Your task to perform on an android device: open app "Adobe Acrobat Reader" (install if not already installed) and go to login screen Image 0: 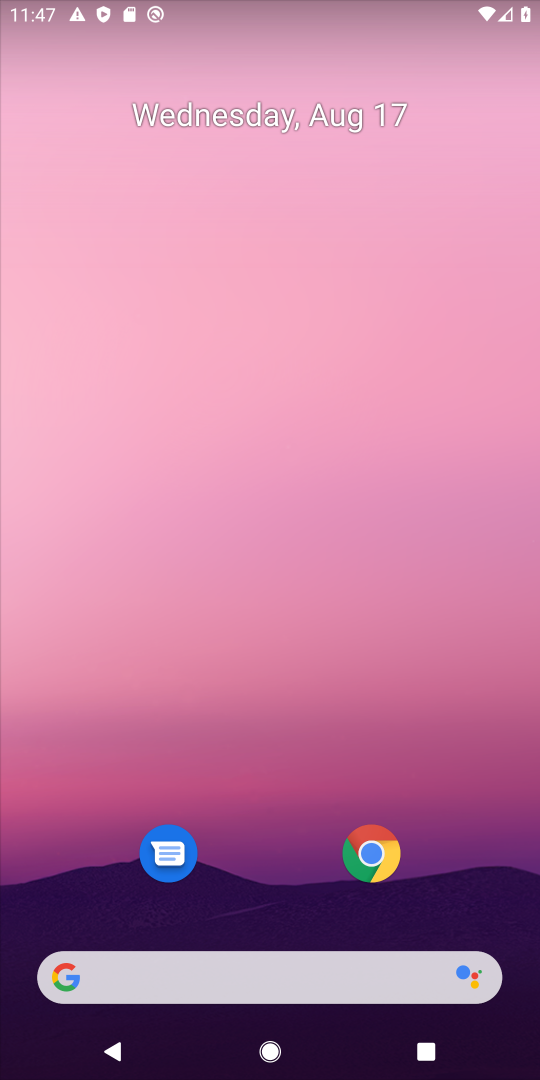
Step 0: drag from (284, 819) to (424, 137)
Your task to perform on an android device: open app "Adobe Acrobat Reader" (install if not already installed) and go to login screen Image 1: 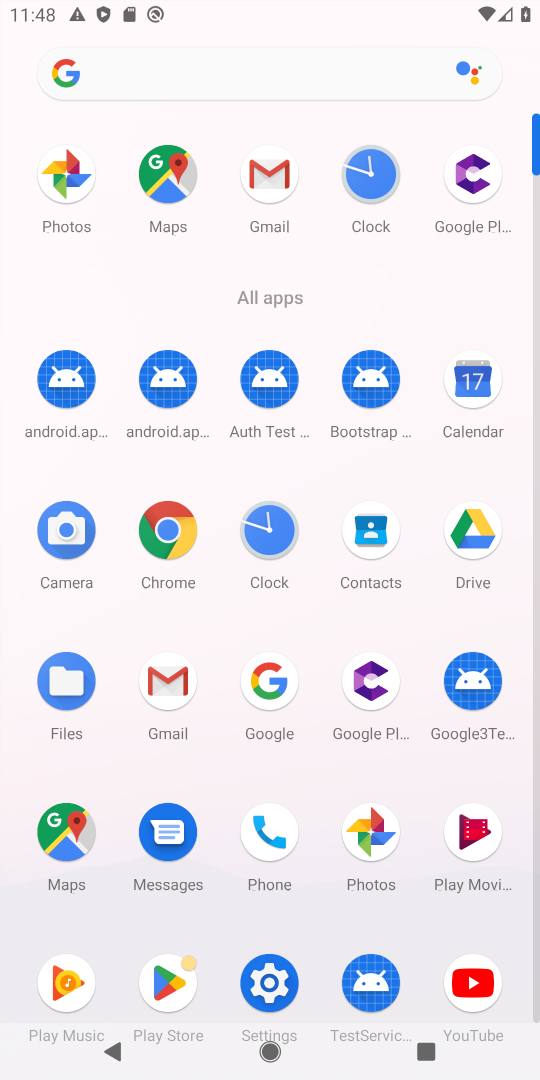
Step 1: drag from (300, 773) to (395, 9)
Your task to perform on an android device: open app "Adobe Acrobat Reader" (install if not already installed) and go to login screen Image 2: 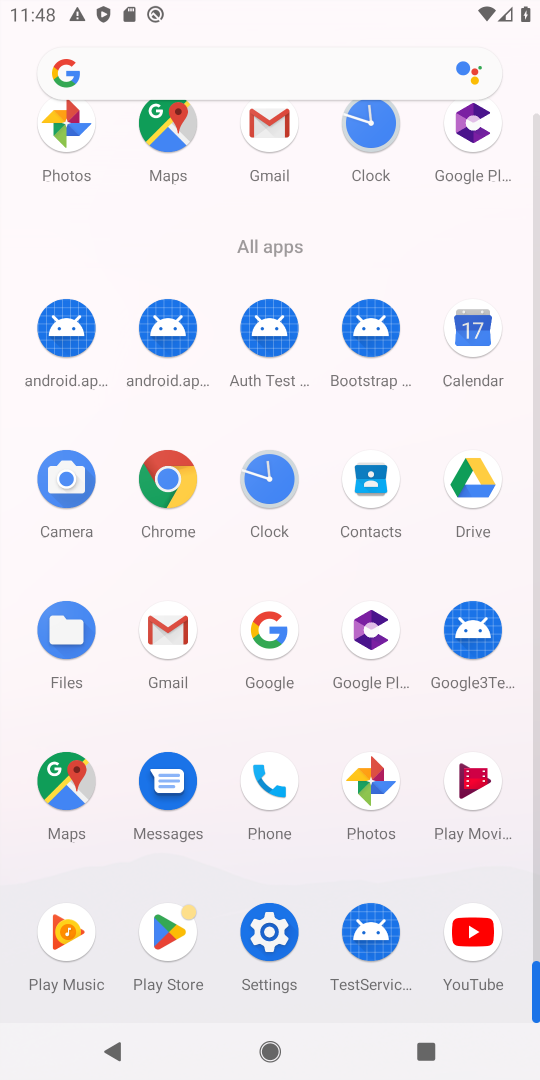
Step 2: click (173, 907)
Your task to perform on an android device: open app "Adobe Acrobat Reader" (install if not already installed) and go to login screen Image 3: 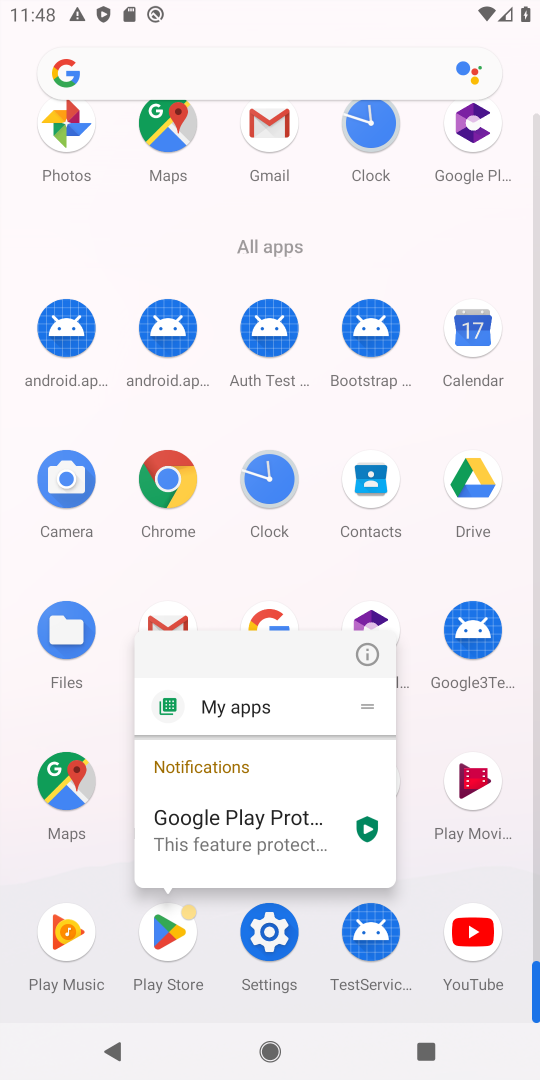
Step 3: click (165, 959)
Your task to perform on an android device: open app "Adobe Acrobat Reader" (install if not already installed) and go to login screen Image 4: 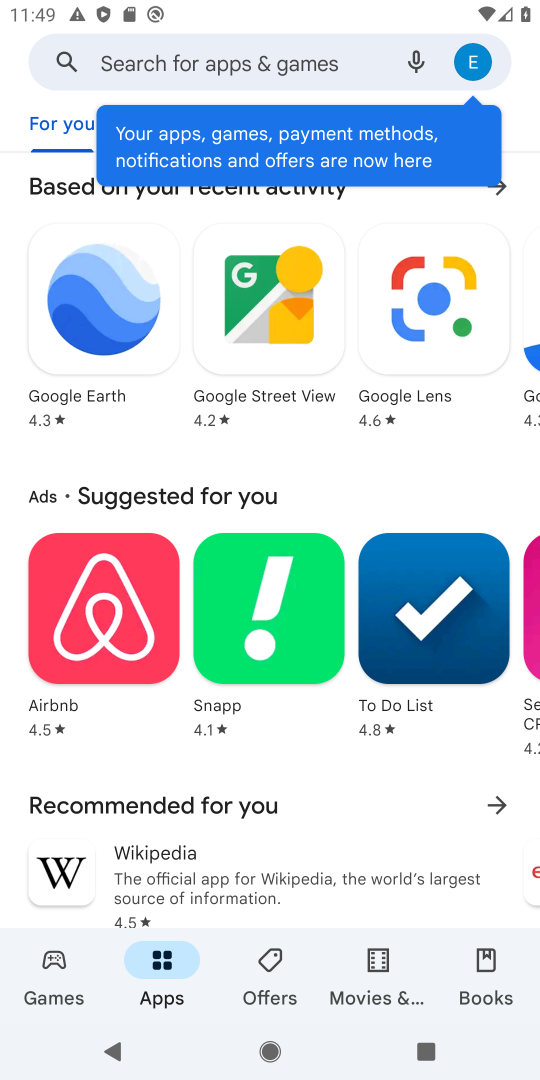
Step 4: click (336, 78)
Your task to perform on an android device: open app "Adobe Acrobat Reader" (install if not already installed) and go to login screen Image 5: 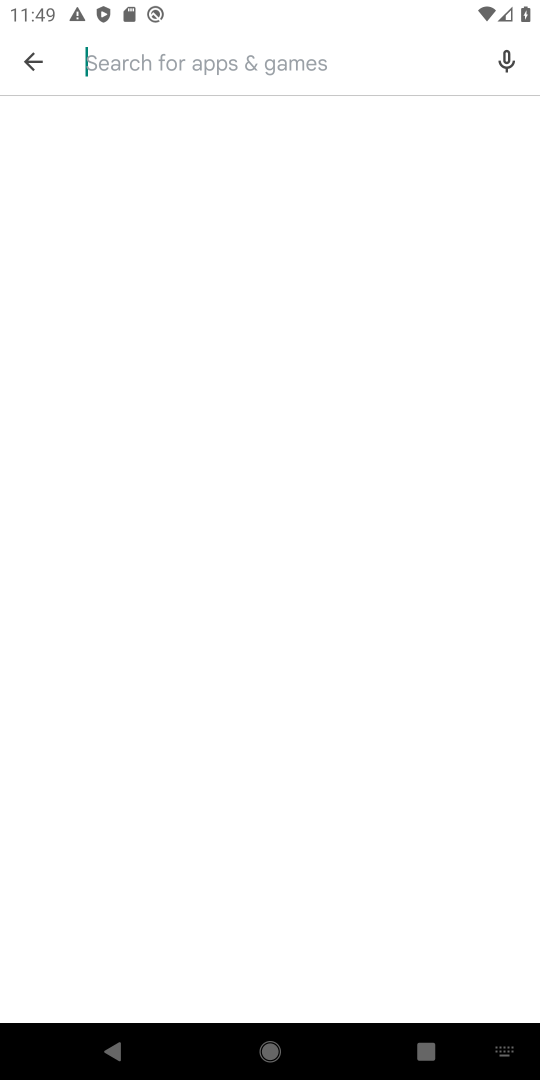
Step 5: type "Adobe Acrobat Reader"
Your task to perform on an android device: open app "Adobe Acrobat Reader" (install if not already installed) and go to login screen Image 6: 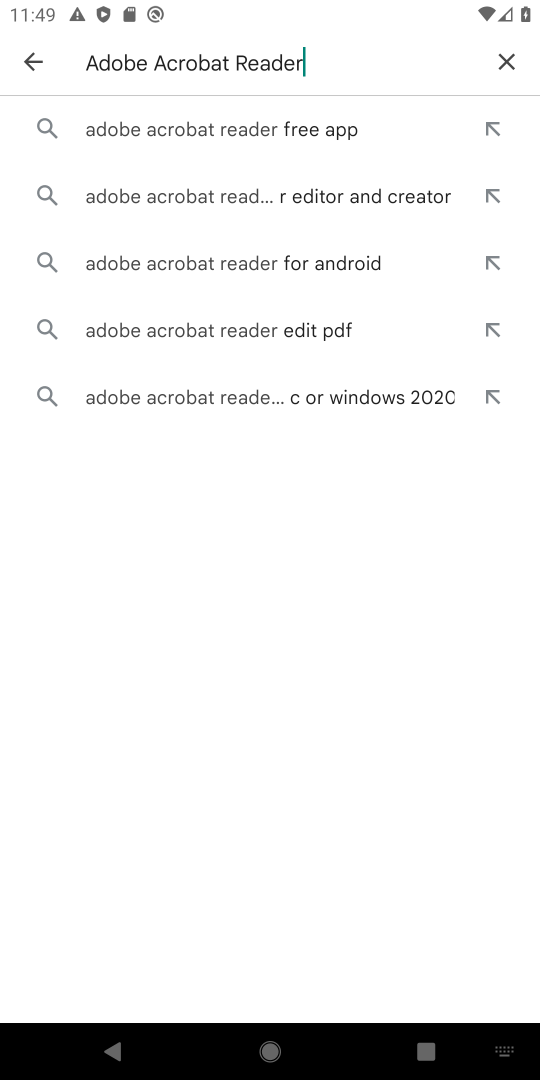
Step 6: click (385, 128)
Your task to perform on an android device: open app "Adobe Acrobat Reader" (install if not already installed) and go to login screen Image 7: 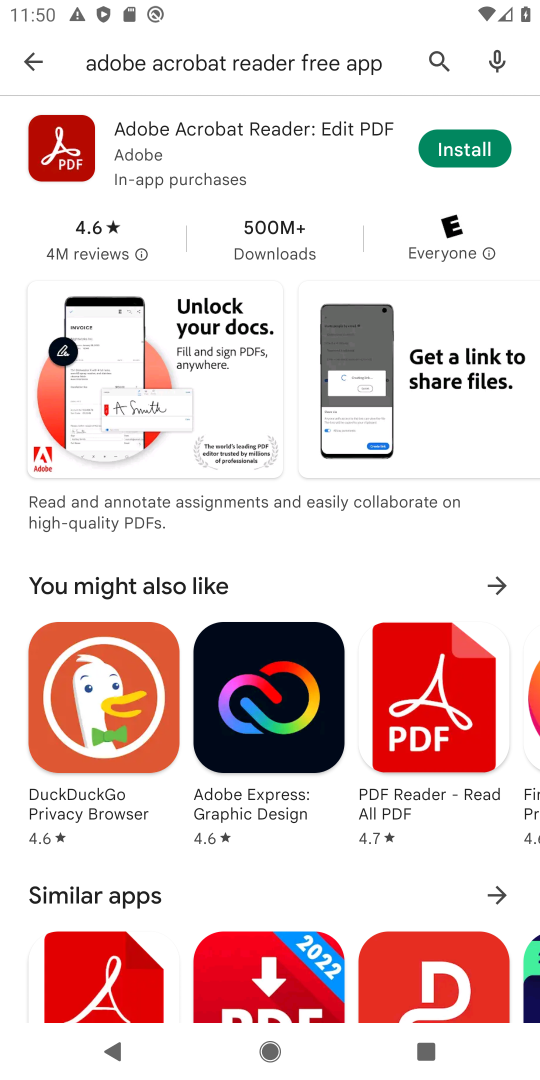
Step 7: click (487, 152)
Your task to perform on an android device: open app "Adobe Acrobat Reader" (install if not already installed) and go to login screen Image 8: 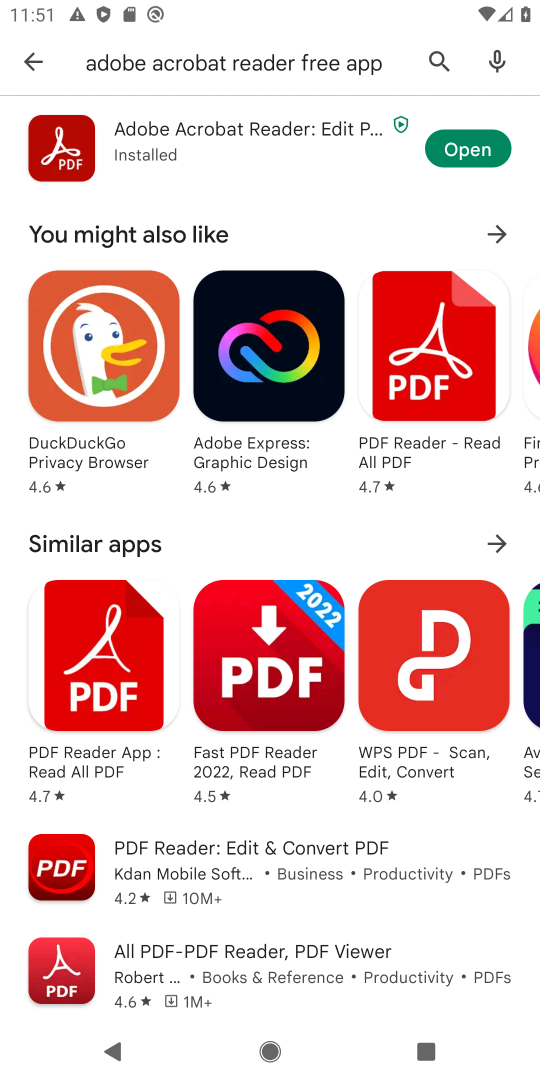
Step 8: click (454, 153)
Your task to perform on an android device: open app "Adobe Acrobat Reader" (install if not already installed) and go to login screen Image 9: 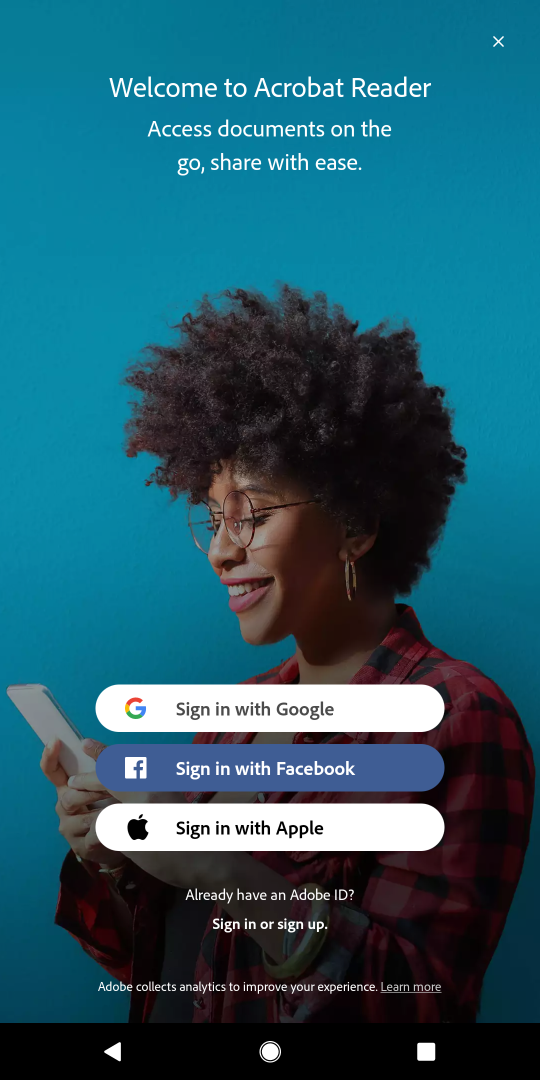
Step 9: task complete